Your task to perform on an android device: move a message to another label in the gmail app Image 0: 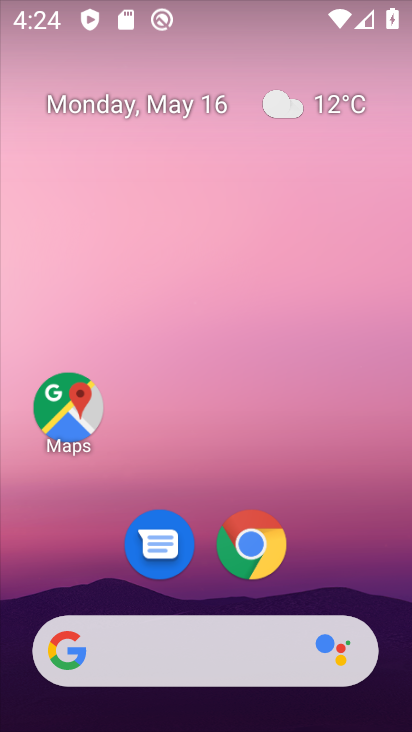
Step 0: drag from (345, 564) to (240, 74)
Your task to perform on an android device: move a message to another label in the gmail app Image 1: 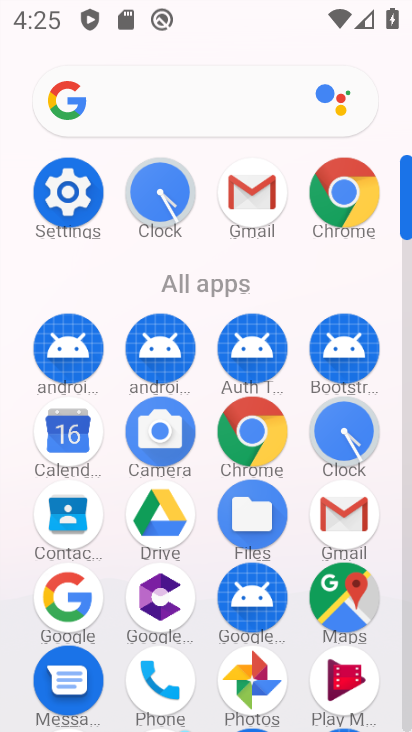
Step 1: click (249, 193)
Your task to perform on an android device: move a message to another label in the gmail app Image 2: 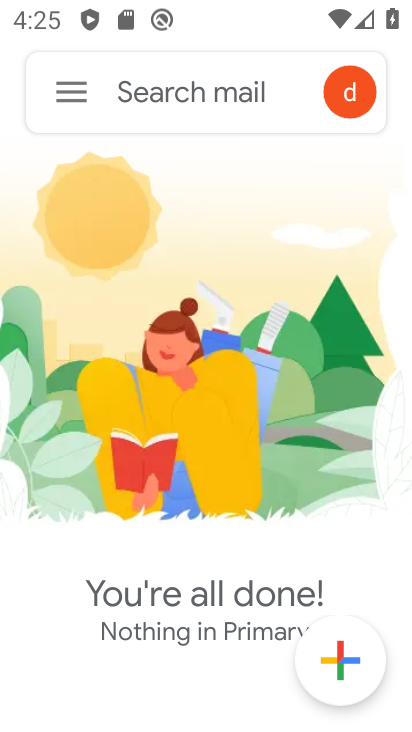
Step 2: click (76, 93)
Your task to perform on an android device: move a message to another label in the gmail app Image 3: 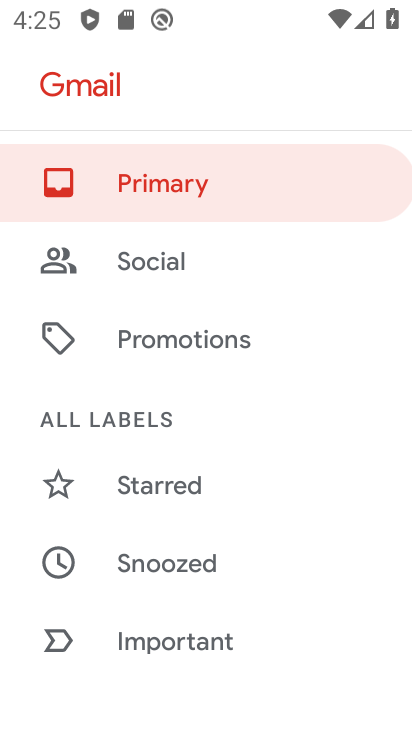
Step 3: click (192, 173)
Your task to perform on an android device: move a message to another label in the gmail app Image 4: 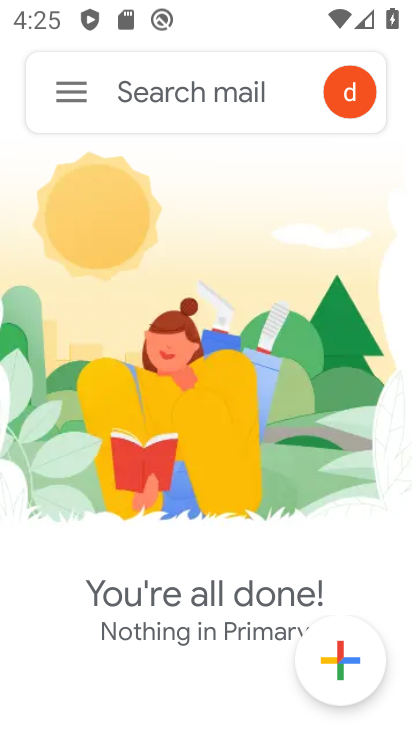
Step 4: click (64, 89)
Your task to perform on an android device: move a message to another label in the gmail app Image 5: 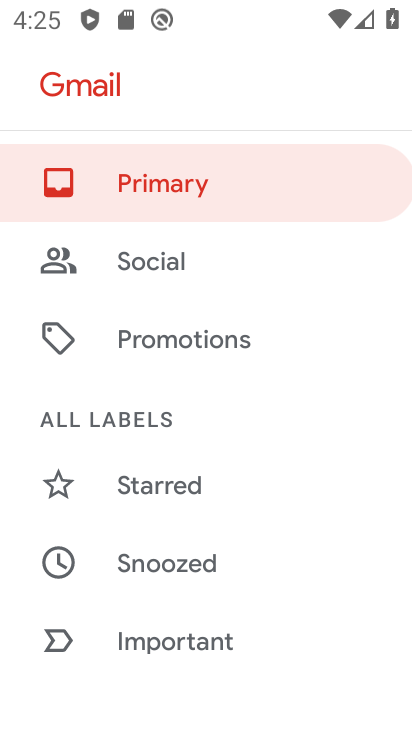
Step 5: drag from (173, 475) to (179, 367)
Your task to perform on an android device: move a message to another label in the gmail app Image 6: 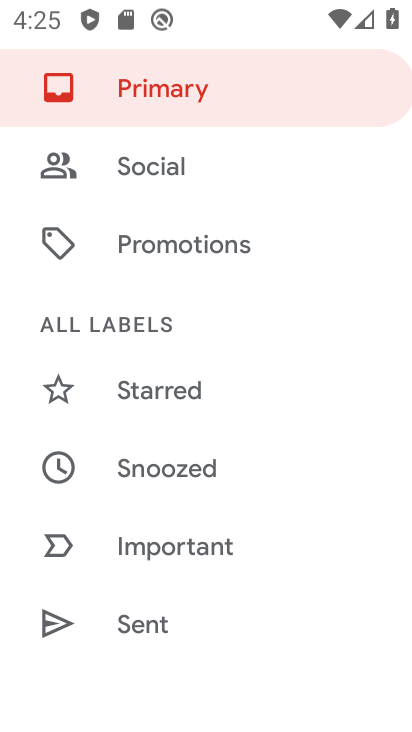
Step 6: drag from (183, 440) to (198, 365)
Your task to perform on an android device: move a message to another label in the gmail app Image 7: 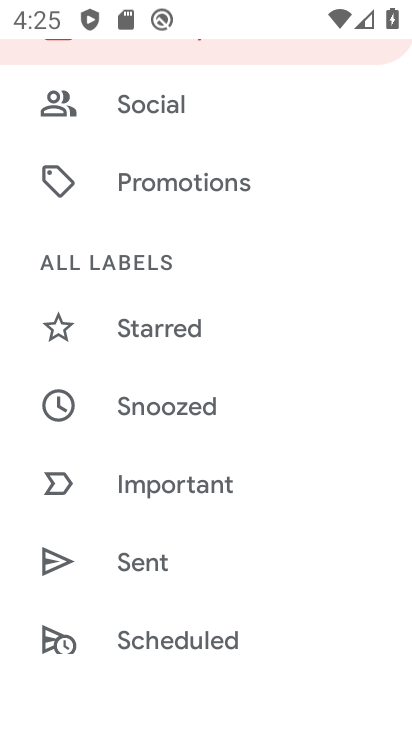
Step 7: drag from (214, 445) to (247, 333)
Your task to perform on an android device: move a message to another label in the gmail app Image 8: 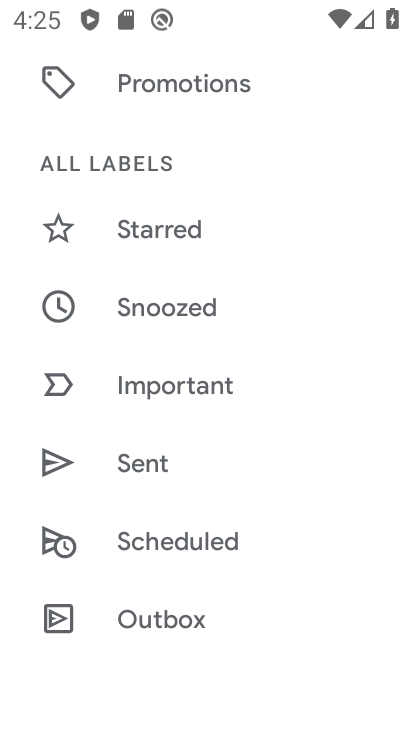
Step 8: drag from (190, 480) to (247, 358)
Your task to perform on an android device: move a message to another label in the gmail app Image 9: 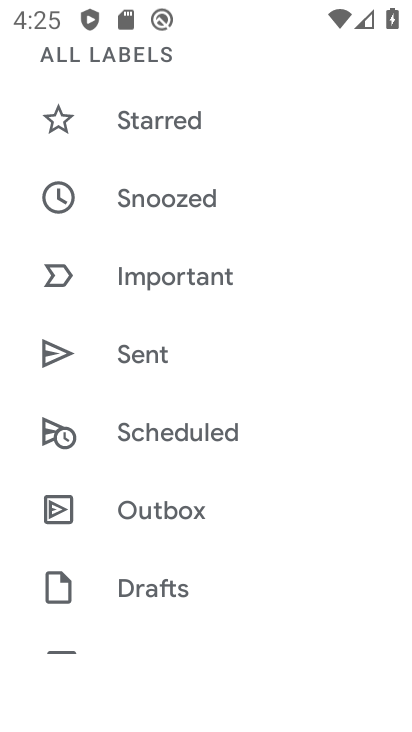
Step 9: drag from (162, 542) to (208, 420)
Your task to perform on an android device: move a message to another label in the gmail app Image 10: 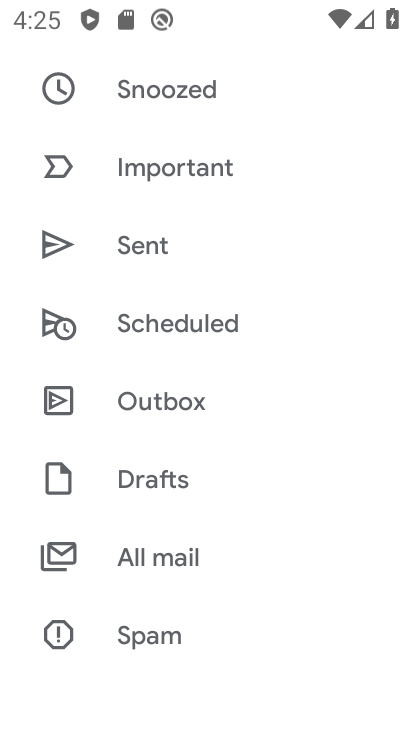
Step 10: drag from (150, 571) to (162, 452)
Your task to perform on an android device: move a message to another label in the gmail app Image 11: 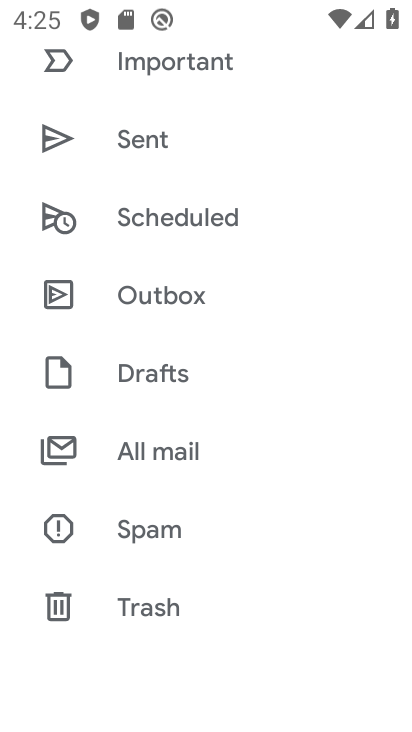
Step 11: drag from (138, 545) to (207, 432)
Your task to perform on an android device: move a message to another label in the gmail app Image 12: 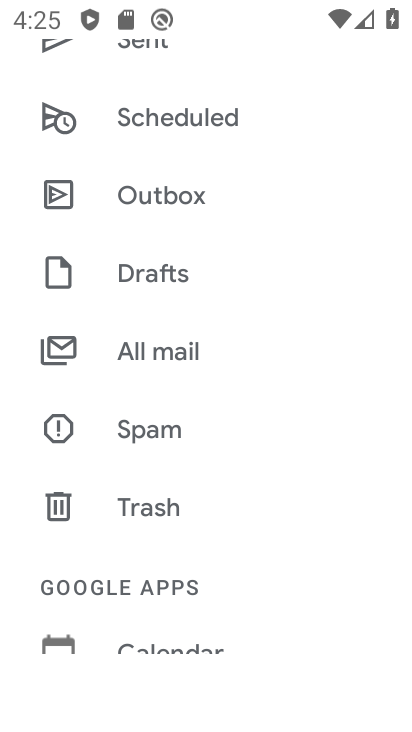
Step 12: click (145, 357)
Your task to perform on an android device: move a message to another label in the gmail app Image 13: 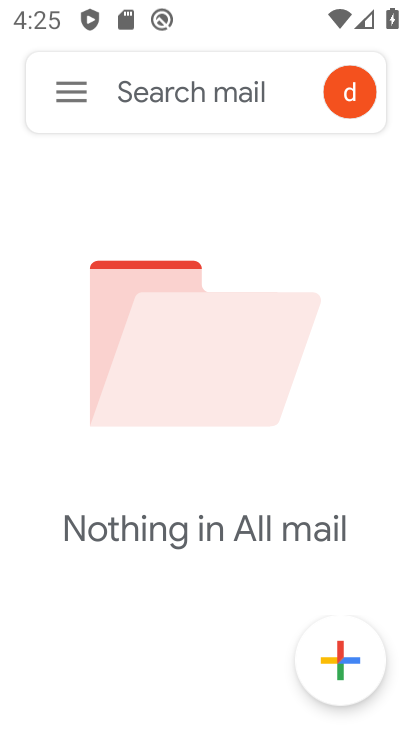
Step 13: task complete